Your task to perform on an android device: Open Amazon Image 0: 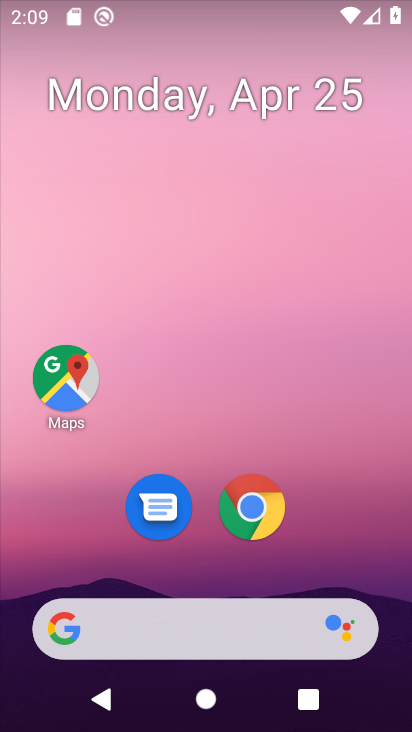
Step 0: drag from (154, 581) to (279, 68)
Your task to perform on an android device: Open Amazon Image 1: 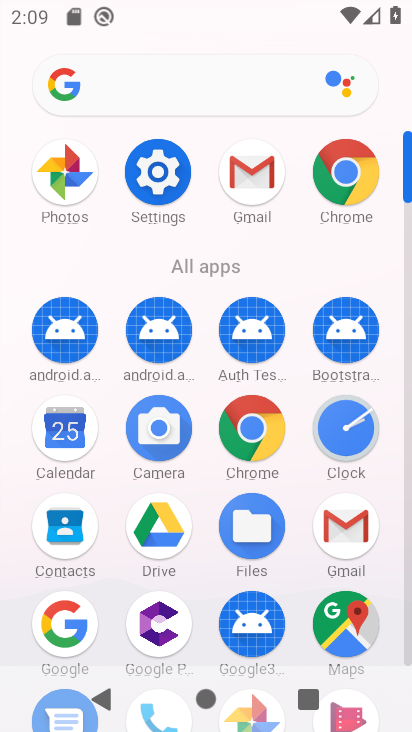
Step 1: click (238, 436)
Your task to perform on an android device: Open Amazon Image 2: 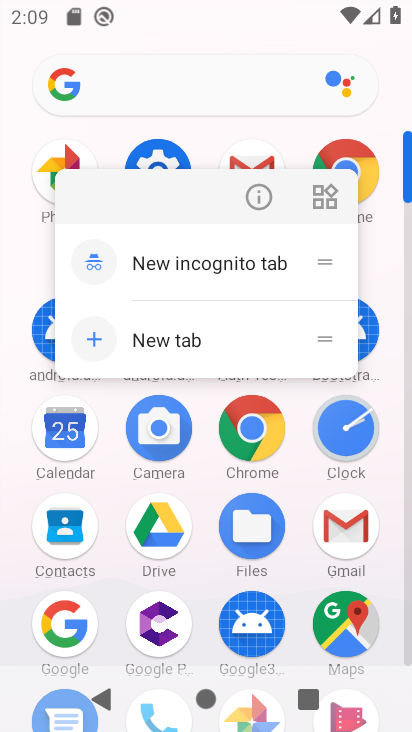
Step 2: click (261, 441)
Your task to perform on an android device: Open Amazon Image 3: 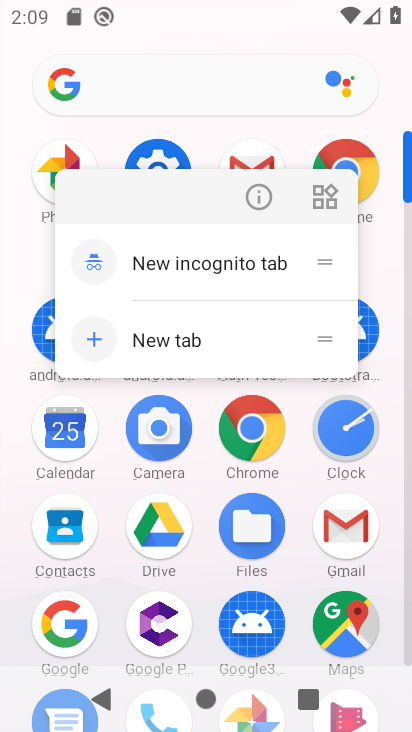
Step 3: click (255, 430)
Your task to perform on an android device: Open Amazon Image 4: 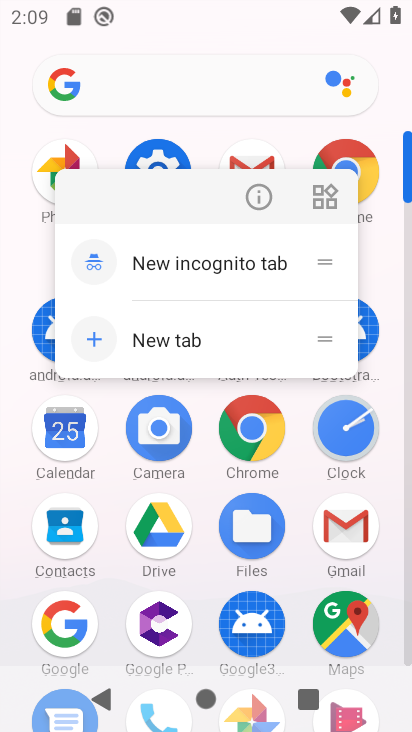
Step 4: click (247, 433)
Your task to perform on an android device: Open Amazon Image 5: 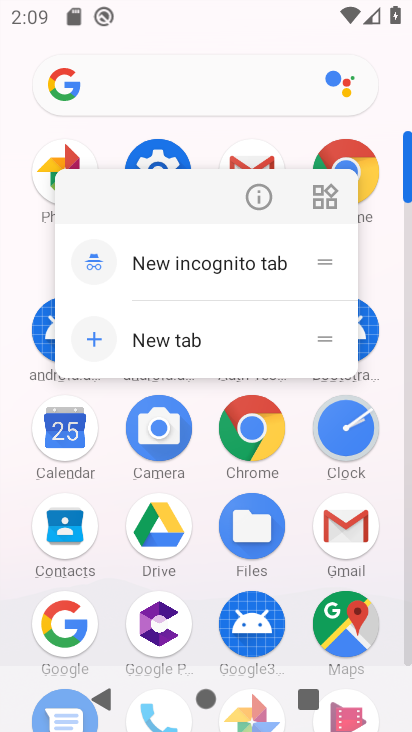
Step 5: click (247, 435)
Your task to perform on an android device: Open Amazon Image 6: 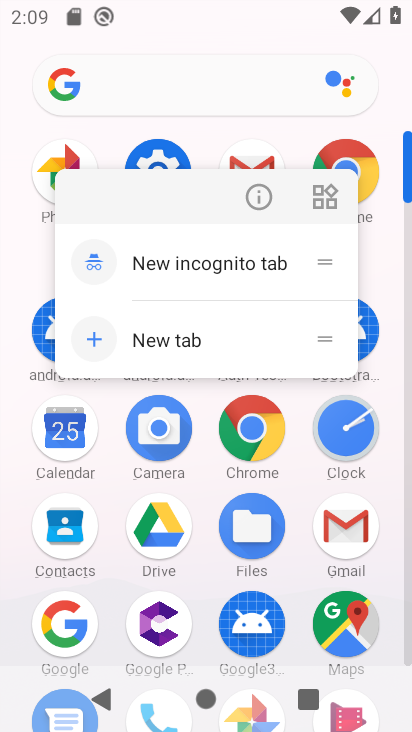
Step 6: click (262, 442)
Your task to perform on an android device: Open Amazon Image 7: 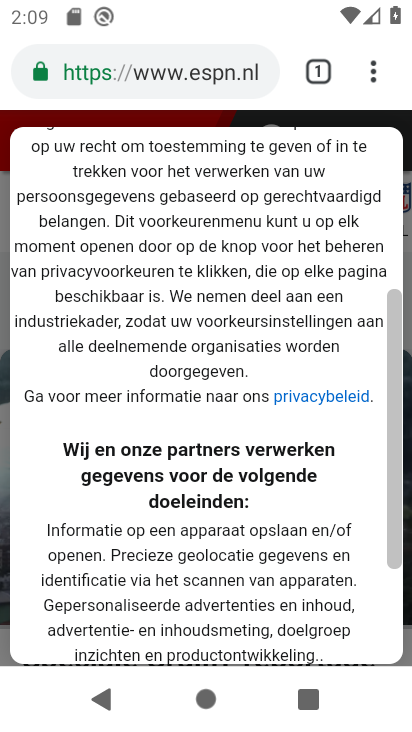
Step 7: drag from (372, 77) to (125, 231)
Your task to perform on an android device: Open Amazon Image 8: 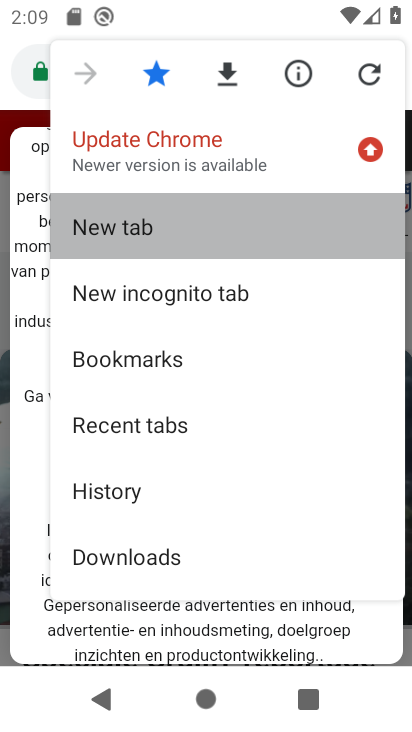
Step 8: click (125, 231)
Your task to perform on an android device: Open Amazon Image 9: 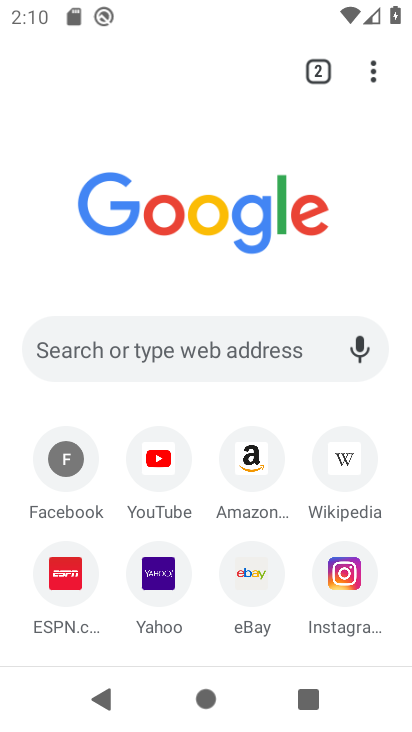
Step 9: click (253, 458)
Your task to perform on an android device: Open Amazon Image 10: 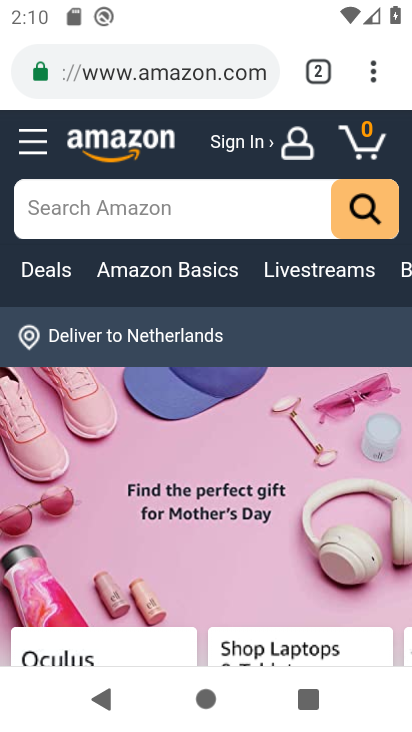
Step 10: task complete